Your task to perform on an android device: Check the weather Image 0: 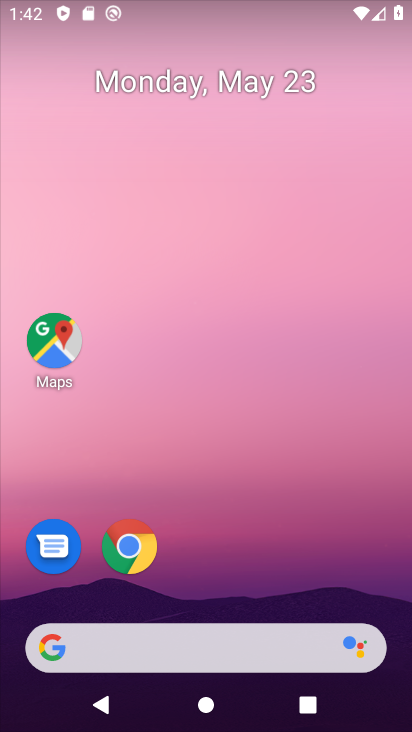
Step 0: click (151, 656)
Your task to perform on an android device: Check the weather Image 1: 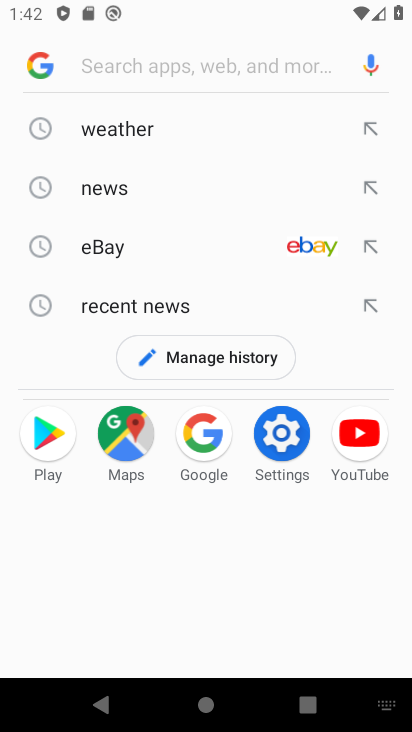
Step 1: click (110, 127)
Your task to perform on an android device: Check the weather Image 2: 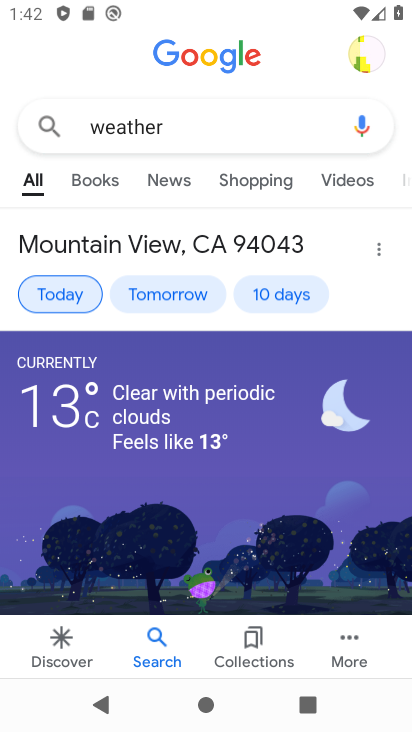
Step 2: task complete